Your task to perform on an android device: Open wifi settings Image 0: 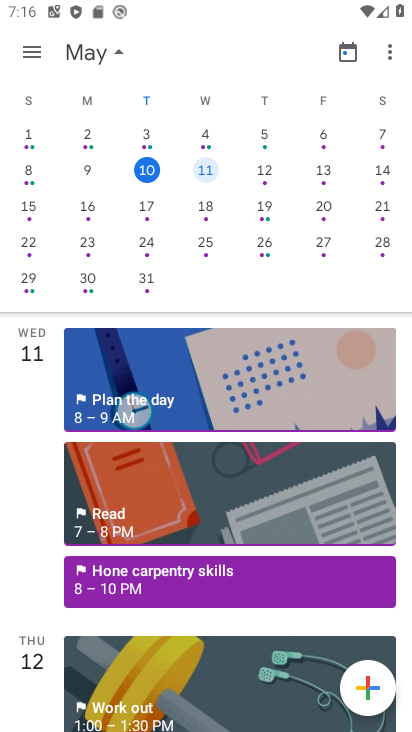
Step 0: press home button
Your task to perform on an android device: Open wifi settings Image 1: 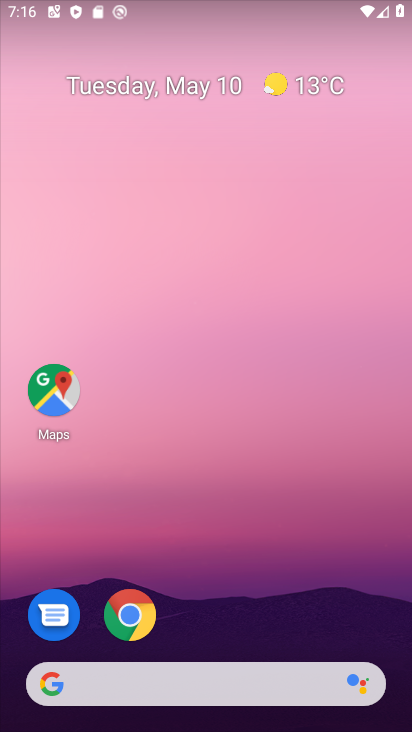
Step 1: drag from (331, 565) to (258, 47)
Your task to perform on an android device: Open wifi settings Image 2: 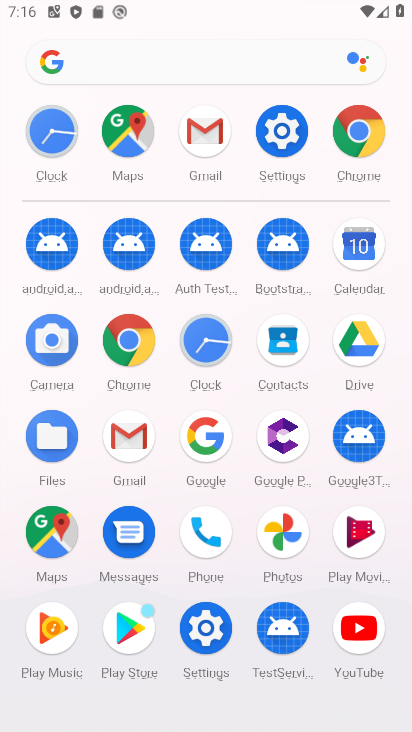
Step 2: click (277, 148)
Your task to perform on an android device: Open wifi settings Image 3: 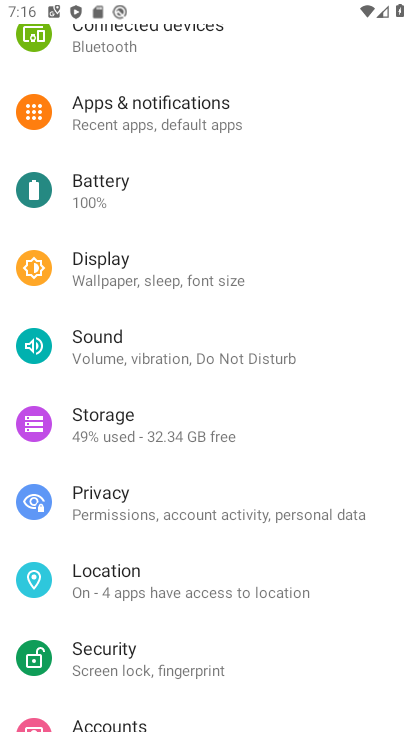
Step 3: drag from (188, 181) to (223, 592)
Your task to perform on an android device: Open wifi settings Image 4: 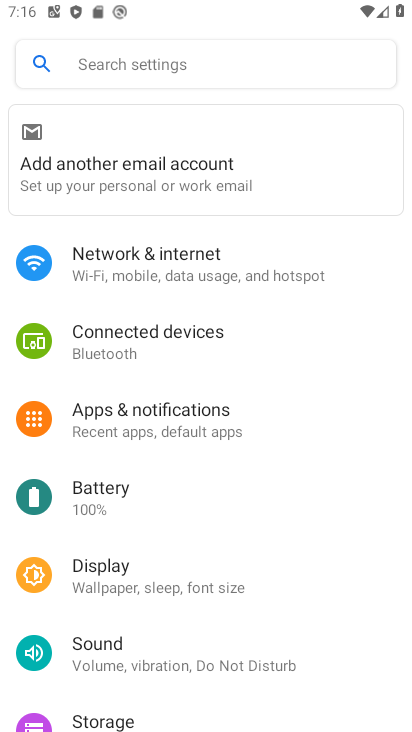
Step 4: click (147, 256)
Your task to perform on an android device: Open wifi settings Image 5: 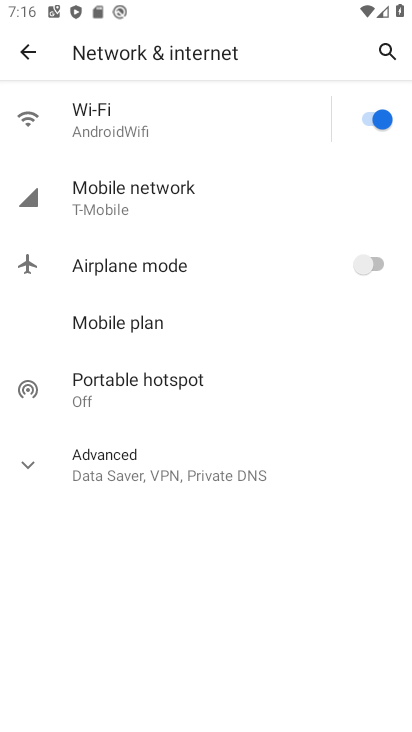
Step 5: click (85, 128)
Your task to perform on an android device: Open wifi settings Image 6: 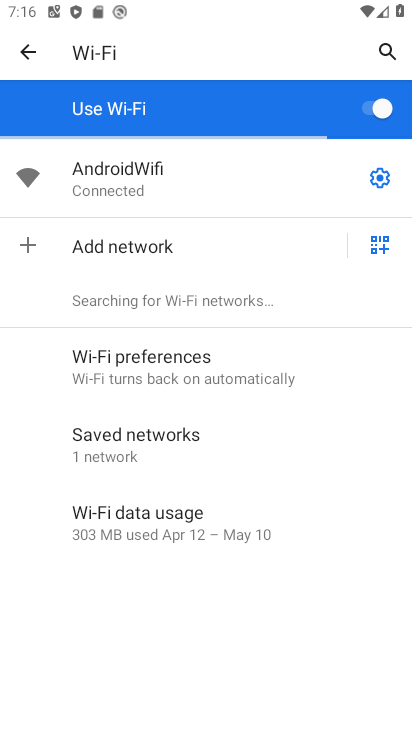
Step 6: task complete